Your task to perform on an android device: Go to calendar. Show me events next week Image 0: 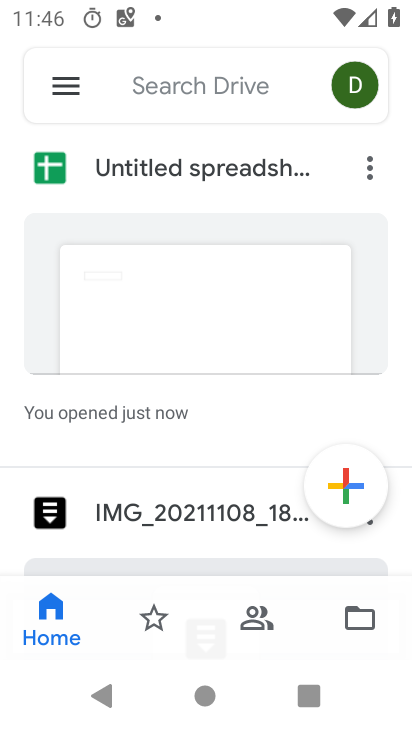
Step 0: press home button
Your task to perform on an android device: Go to calendar. Show me events next week Image 1: 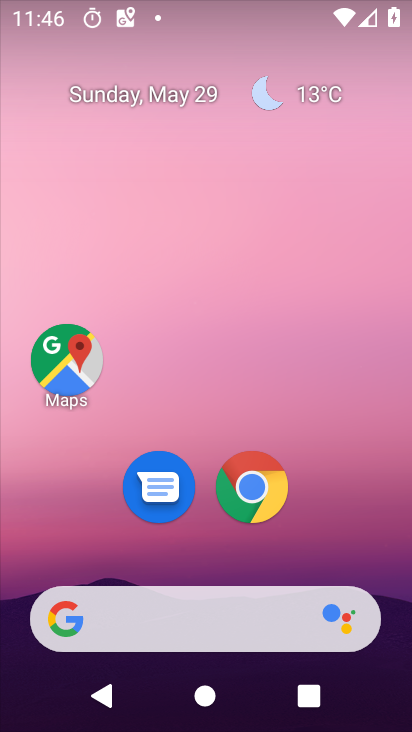
Step 1: drag from (399, 658) to (326, 248)
Your task to perform on an android device: Go to calendar. Show me events next week Image 2: 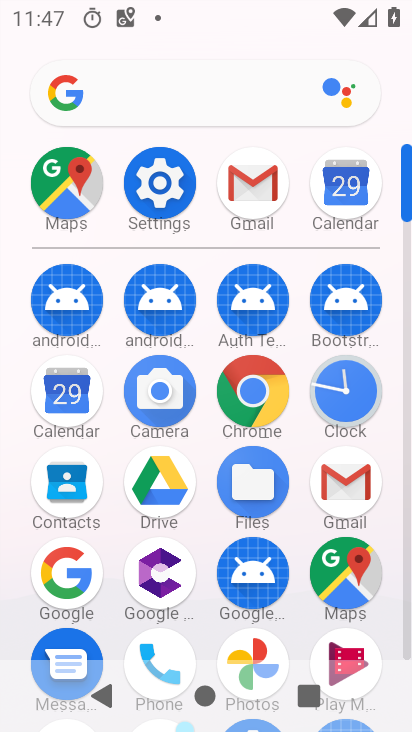
Step 2: click (81, 399)
Your task to perform on an android device: Go to calendar. Show me events next week Image 3: 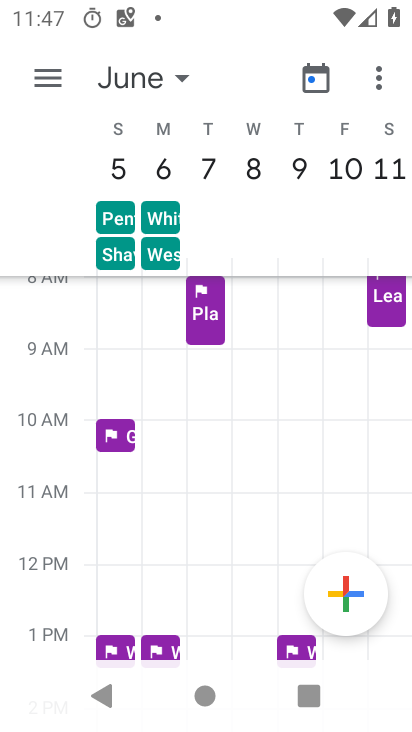
Step 3: click (180, 74)
Your task to perform on an android device: Go to calendar. Show me events next week Image 4: 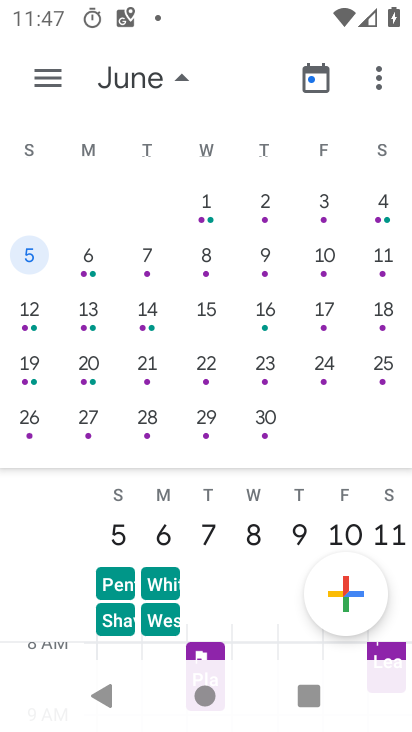
Step 4: drag from (82, 197) to (360, 188)
Your task to perform on an android device: Go to calendar. Show me events next week Image 5: 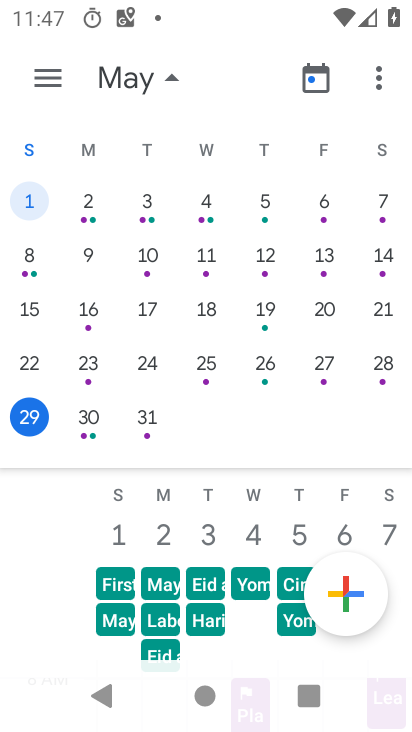
Step 5: drag from (389, 233) to (86, 193)
Your task to perform on an android device: Go to calendar. Show me events next week Image 6: 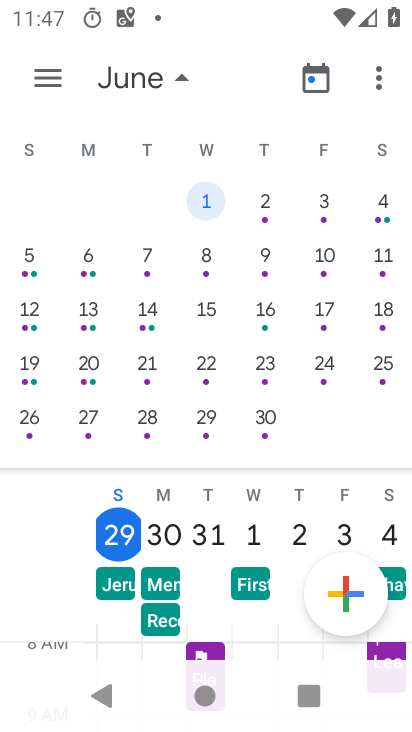
Step 6: click (204, 257)
Your task to perform on an android device: Go to calendar. Show me events next week Image 7: 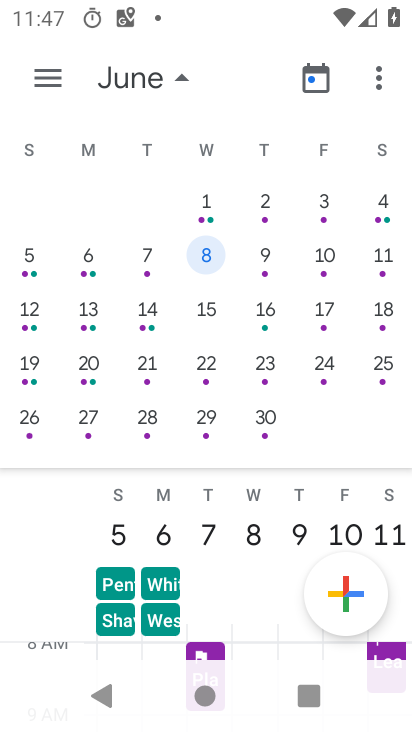
Step 7: click (49, 67)
Your task to perform on an android device: Go to calendar. Show me events next week Image 8: 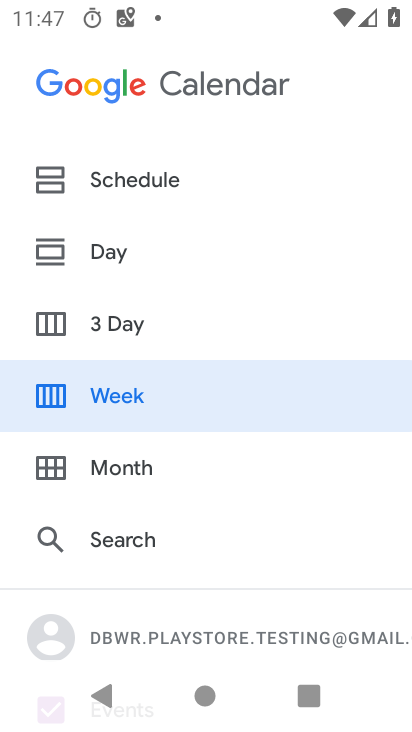
Step 8: click (102, 179)
Your task to perform on an android device: Go to calendar. Show me events next week Image 9: 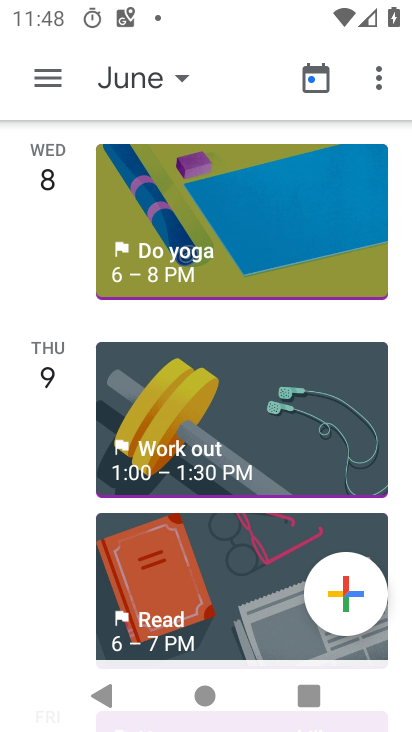
Step 9: click (46, 81)
Your task to perform on an android device: Go to calendar. Show me events next week Image 10: 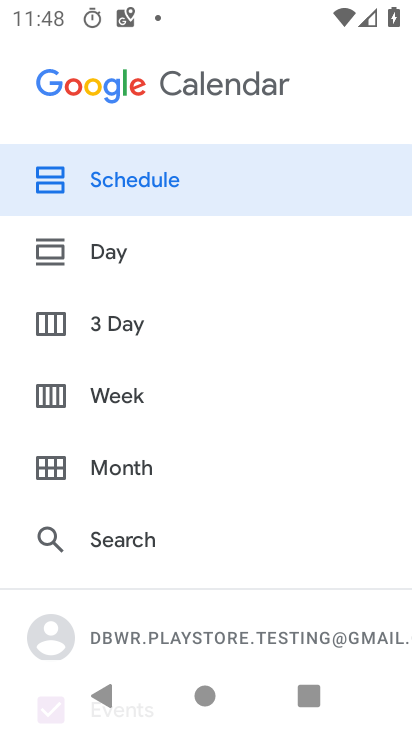
Step 10: click (99, 389)
Your task to perform on an android device: Go to calendar. Show me events next week Image 11: 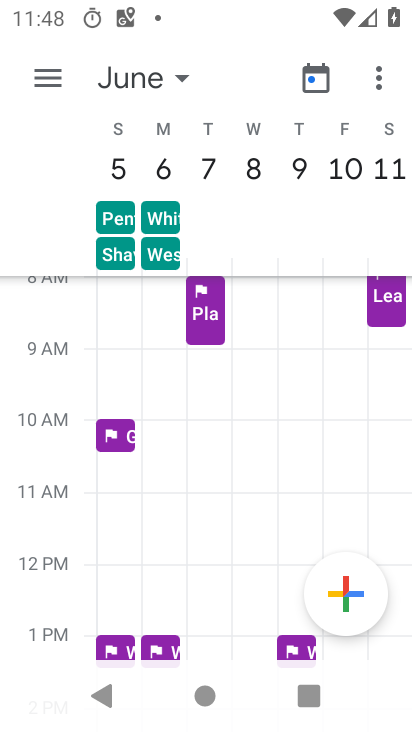
Step 11: task complete